Your task to perform on an android device: turn off sleep mode Image 0: 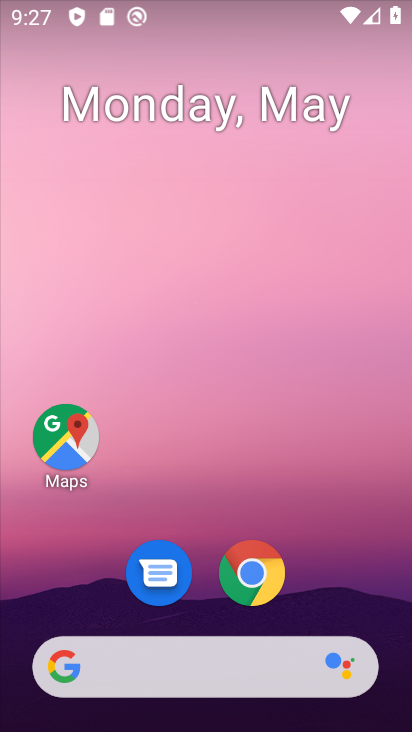
Step 0: drag from (309, 474) to (309, 43)
Your task to perform on an android device: turn off sleep mode Image 1: 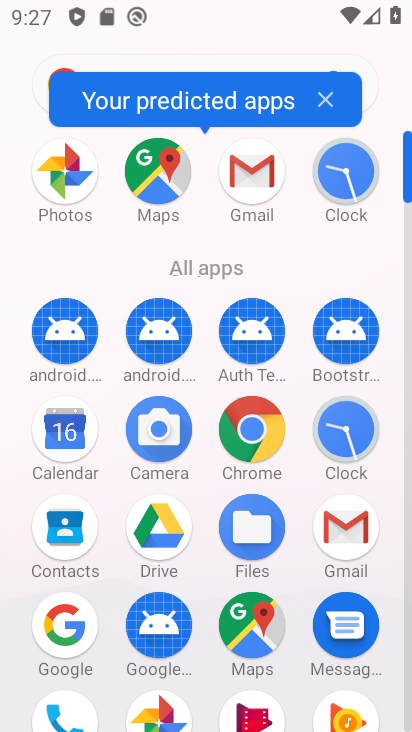
Step 1: drag from (304, 262) to (295, 9)
Your task to perform on an android device: turn off sleep mode Image 2: 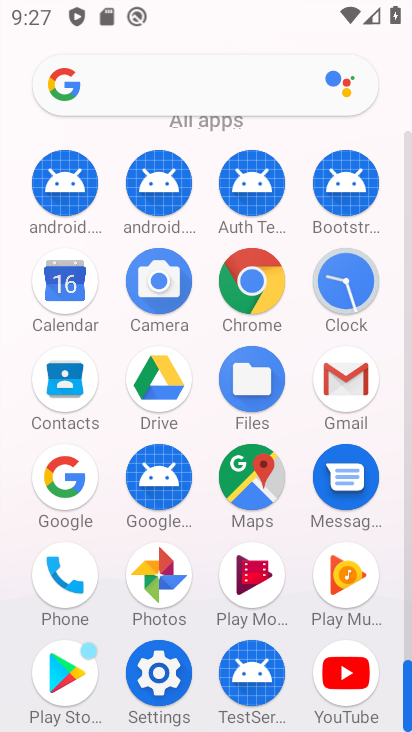
Step 2: click (170, 673)
Your task to perform on an android device: turn off sleep mode Image 3: 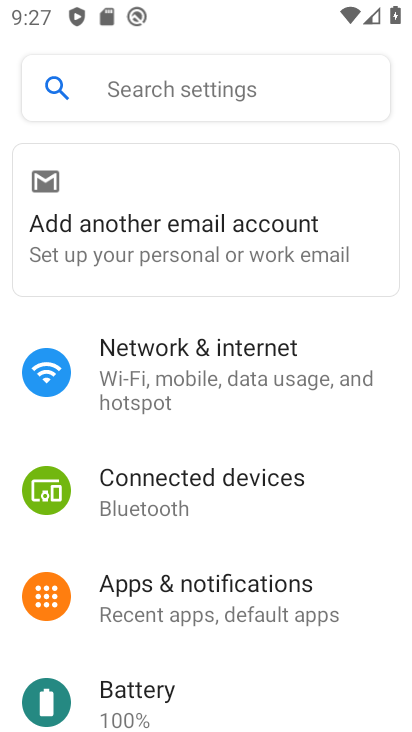
Step 3: drag from (265, 663) to (253, 252)
Your task to perform on an android device: turn off sleep mode Image 4: 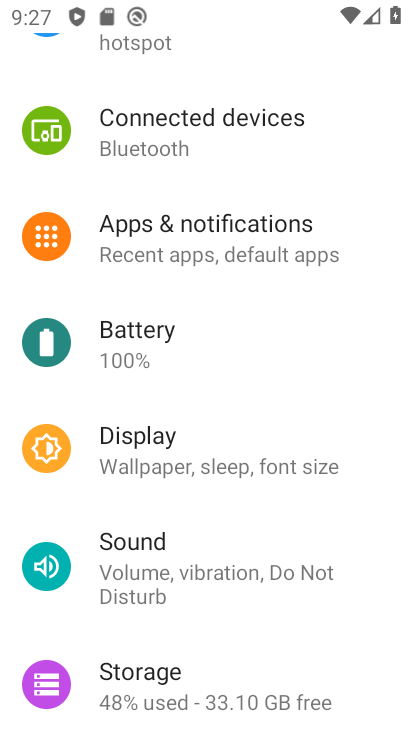
Step 4: click (296, 470)
Your task to perform on an android device: turn off sleep mode Image 5: 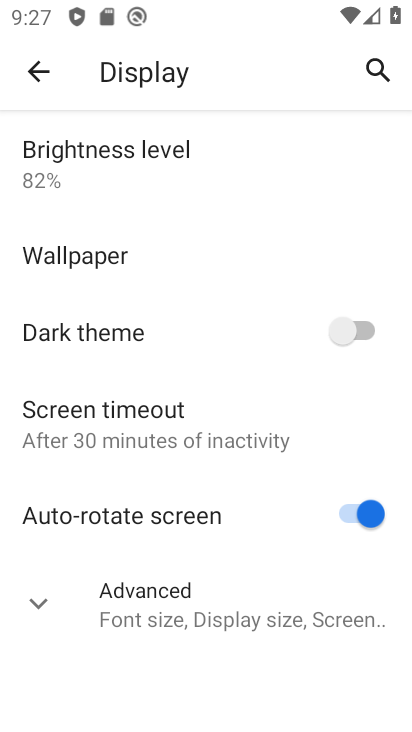
Step 5: task complete